Your task to perform on an android device: toggle data saver in the chrome app Image 0: 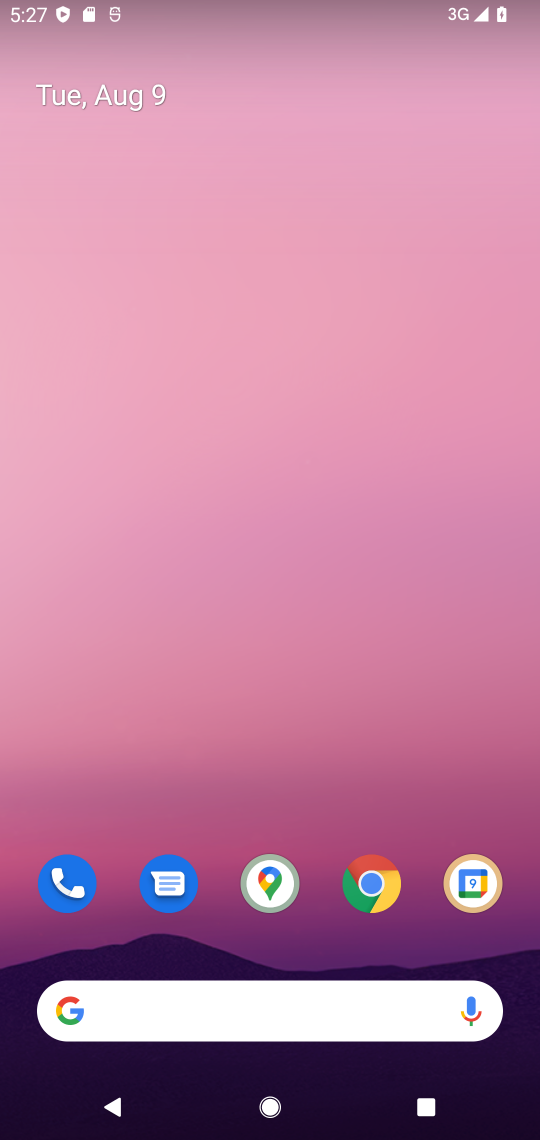
Step 0: click (366, 910)
Your task to perform on an android device: toggle data saver in the chrome app Image 1: 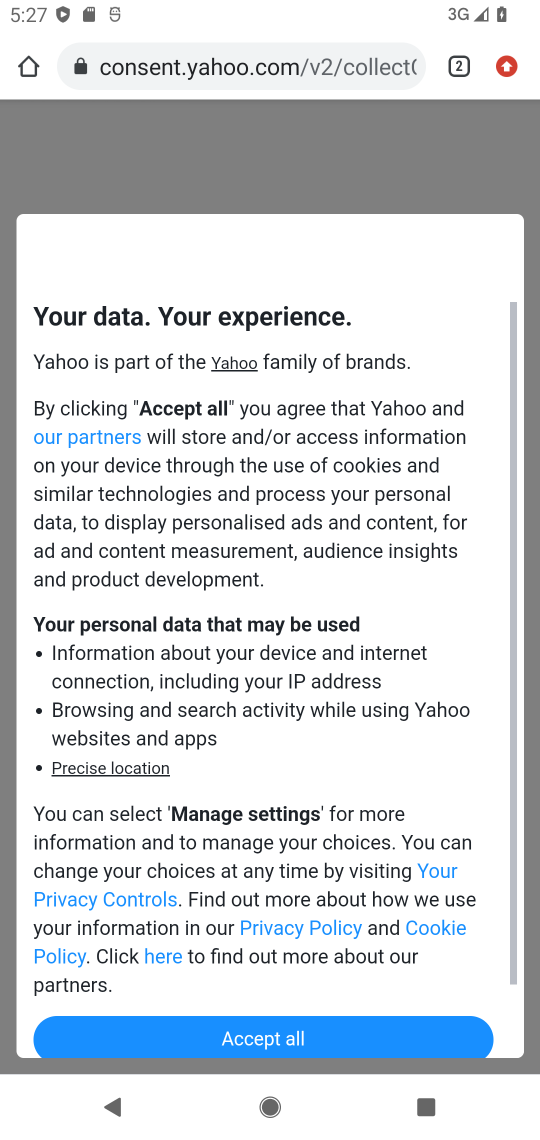
Step 1: click (500, 68)
Your task to perform on an android device: toggle data saver in the chrome app Image 2: 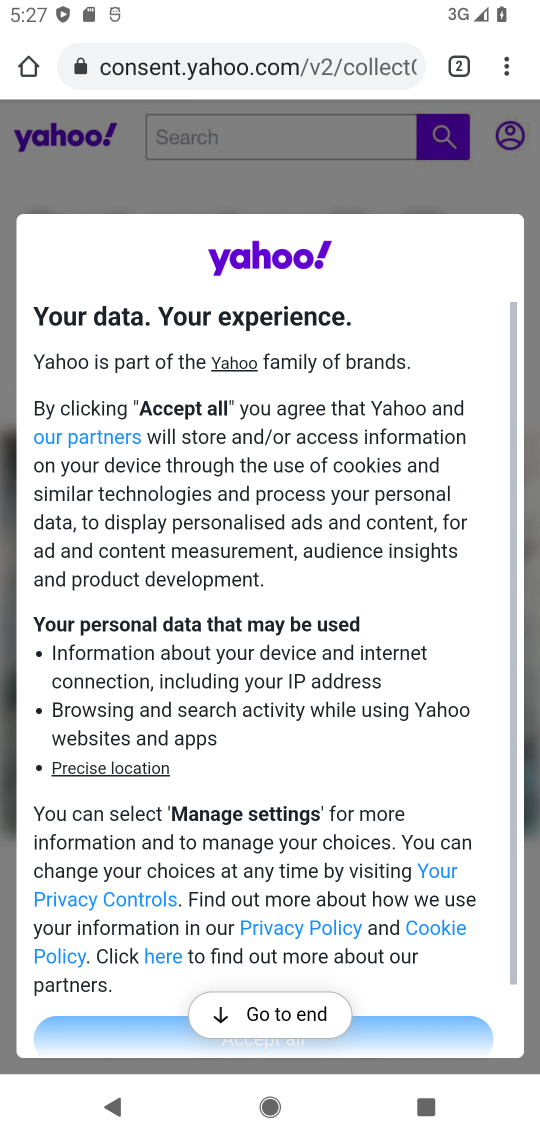
Step 2: click (499, 67)
Your task to perform on an android device: toggle data saver in the chrome app Image 3: 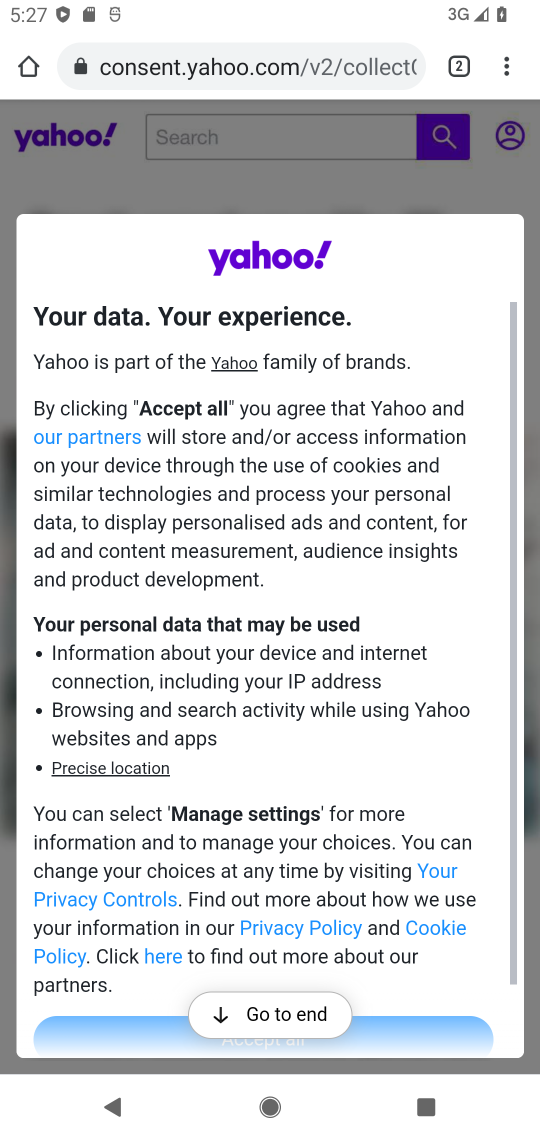
Step 3: click (516, 61)
Your task to perform on an android device: toggle data saver in the chrome app Image 4: 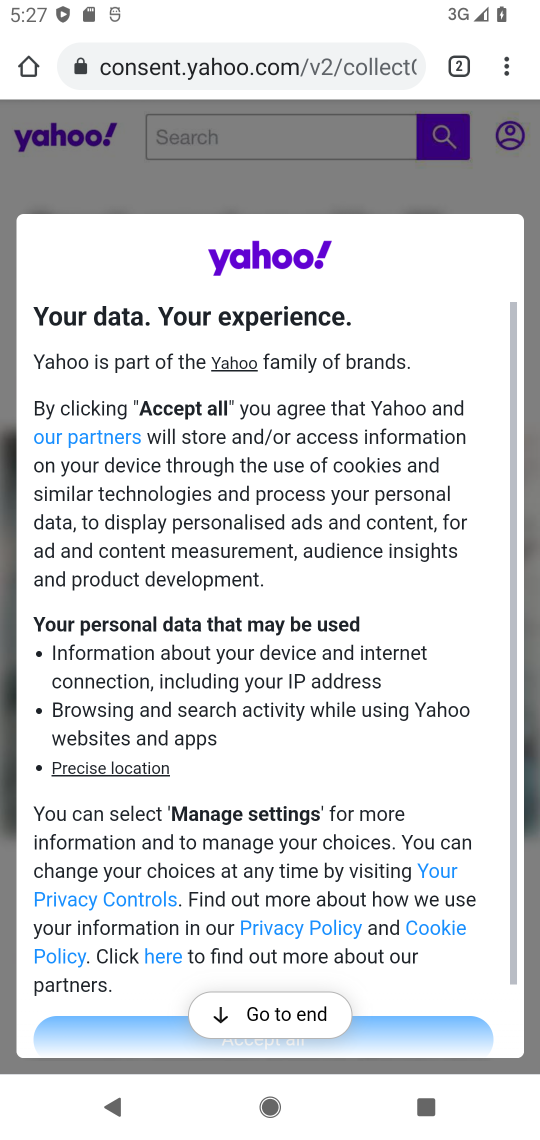
Step 4: drag from (504, 58) to (308, 871)
Your task to perform on an android device: toggle data saver in the chrome app Image 5: 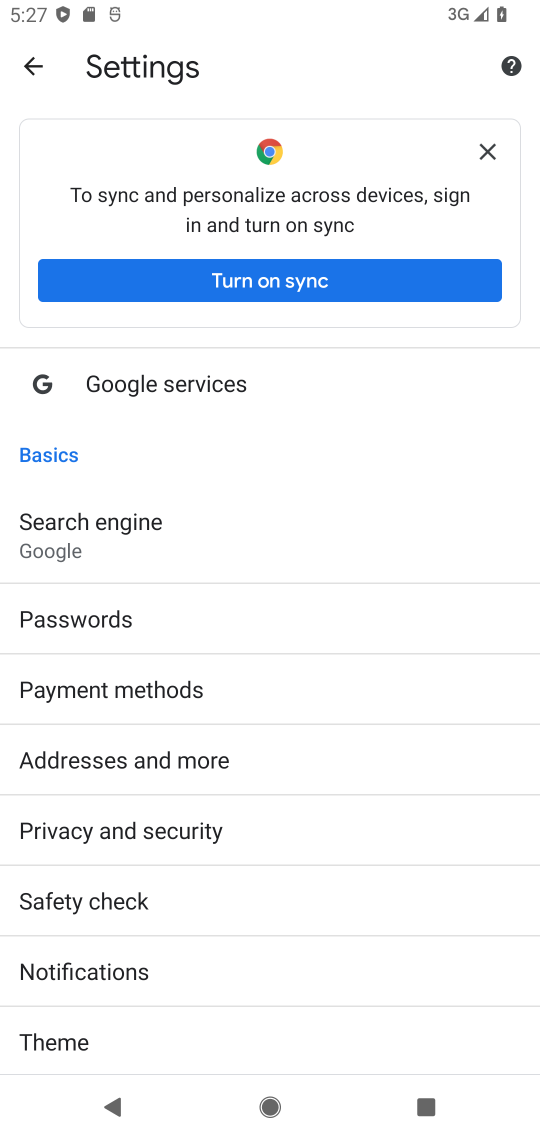
Step 5: drag from (183, 895) to (183, 420)
Your task to perform on an android device: toggle data saver in the chrome app Image 6: 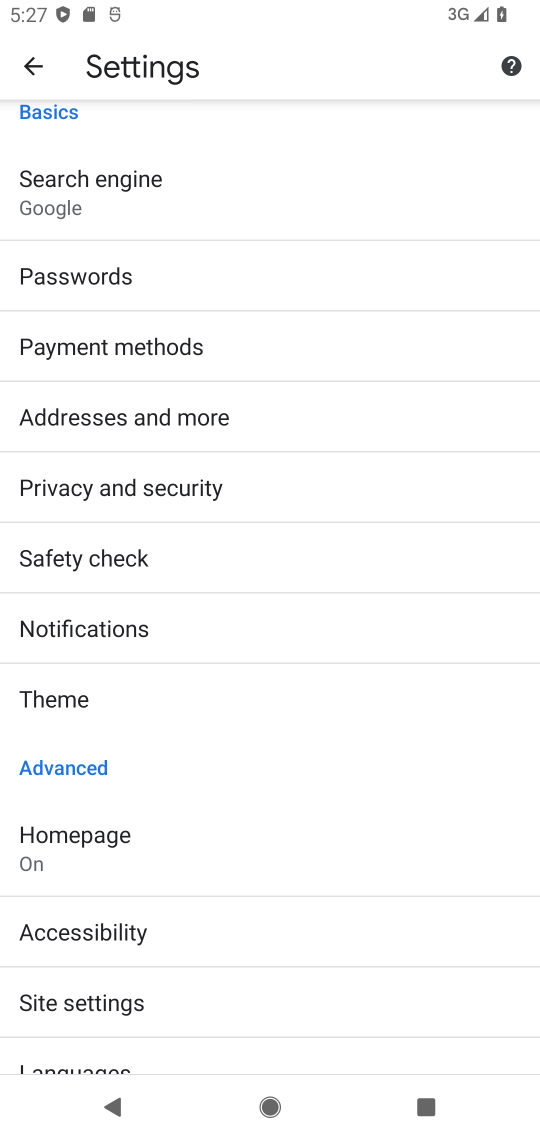
Step 6: drag from (176, 966) to (185, 610)
Your task to perform on an android device: toggle data saver in the chrome app Image 7: 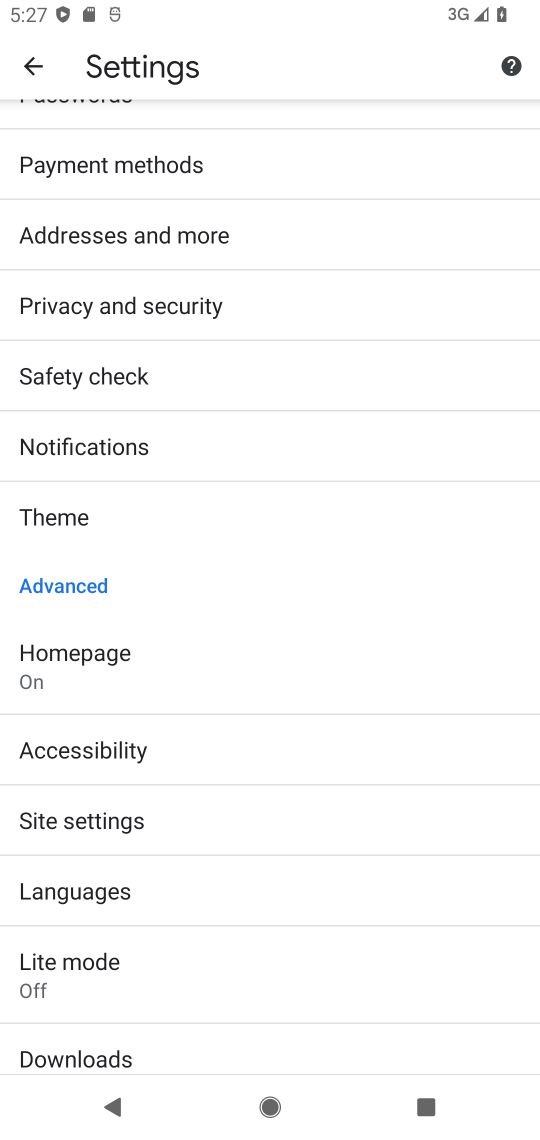
Step 7: click (158, 970)
Your task to perform on an android device: toggle data saver in the chrome app Image 8: 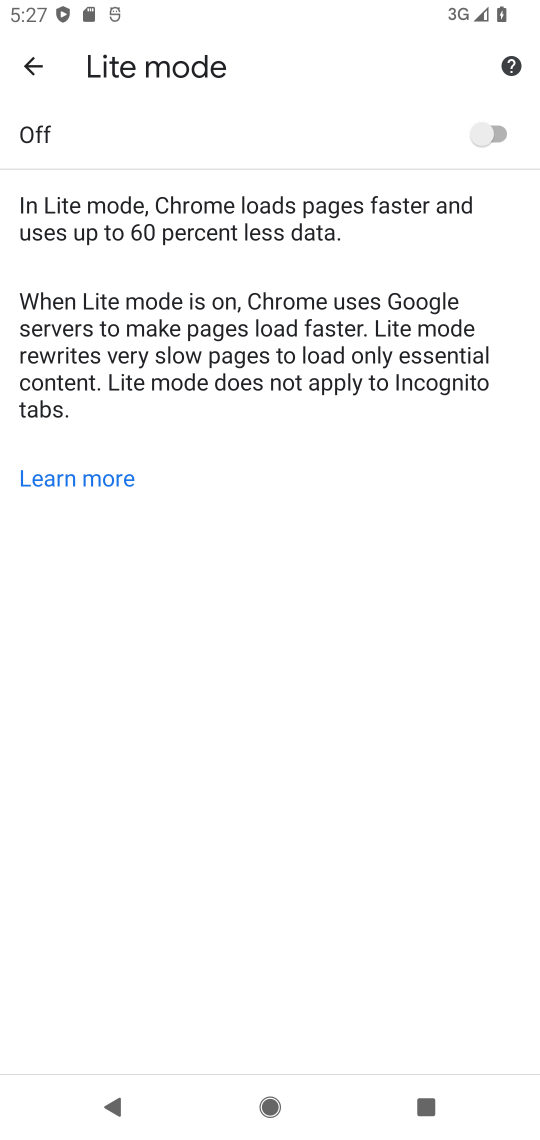
Step 8: click (491, 138)
Your task to perform on an android device: toggle data saver in the chrome app Image 9: 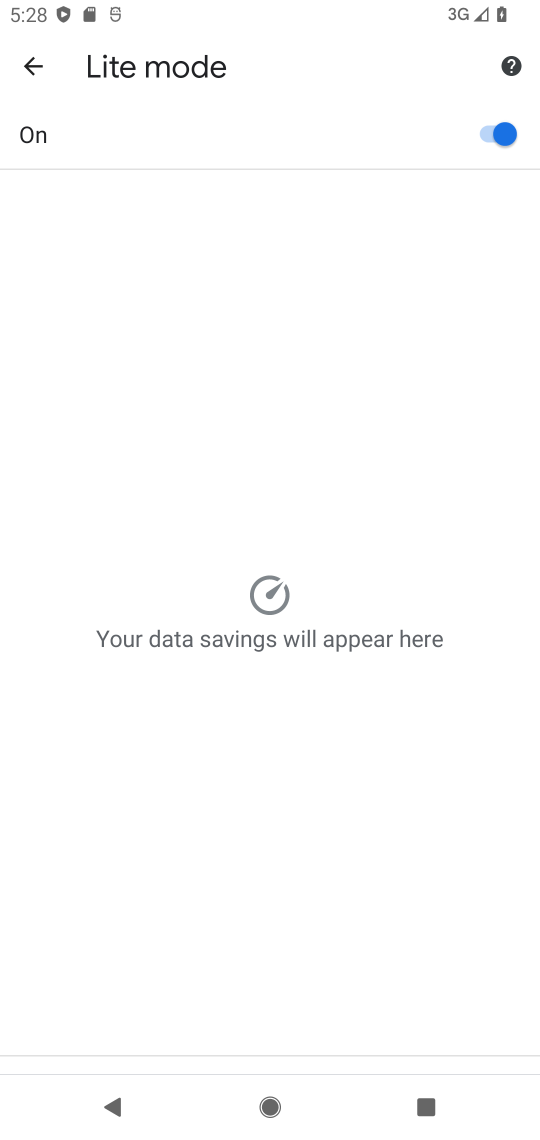
Step 9: task complete